Your task to perform on an android device: delete location history Image 0: 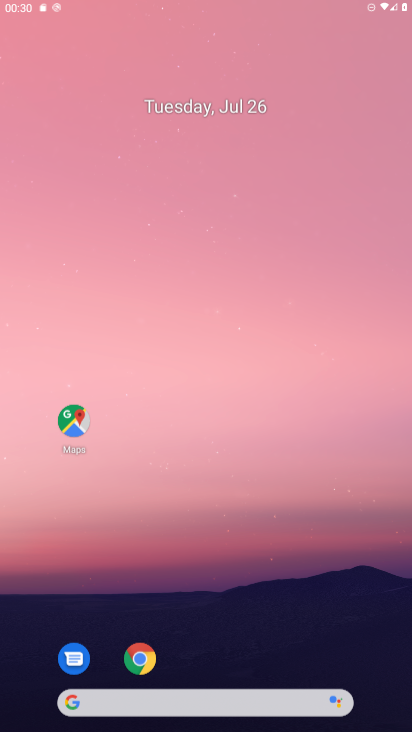
Step 0: press home button
Your task to perform on an android device: delete location history Image 1: 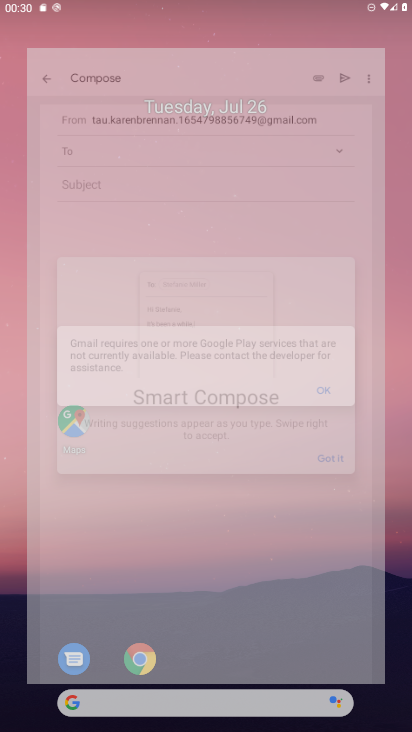
Step 1: click (347, 114)
Your task to perform on an android device: delete location history Image 2: 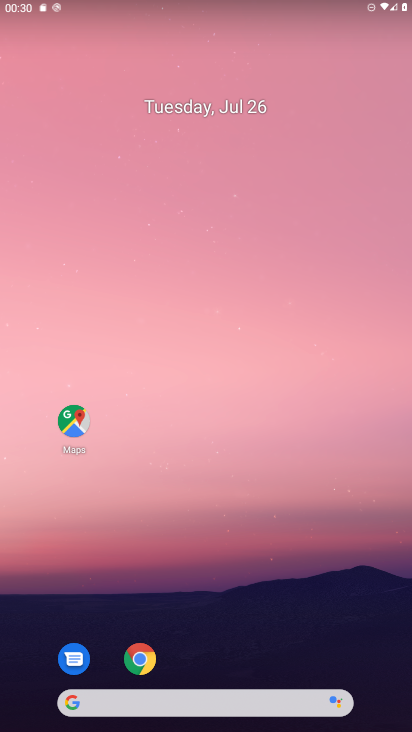
Step 2: drag from (305, 599) to (265, 187)
Your task to perform on an android device: delete location history Image 3: 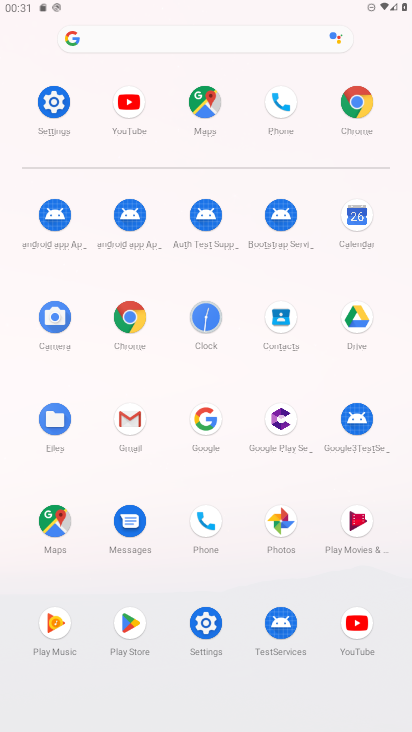
Step 3: click (56, 520)
Your task to perform on an android device: delete location history Image 4: 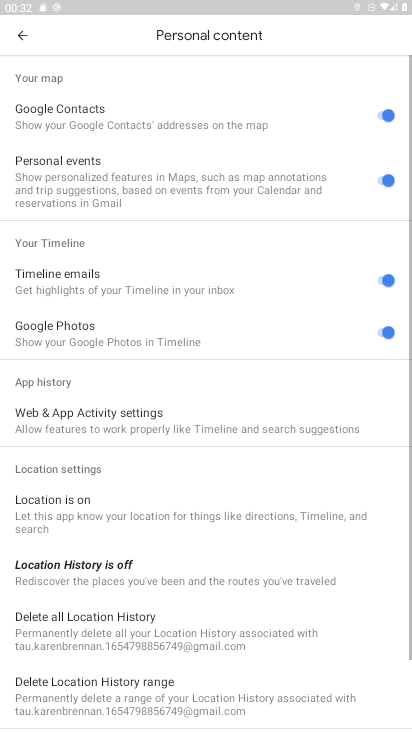
Step 4: click (100, 636)
Your task to perform on an android device: delete location history Image 5: 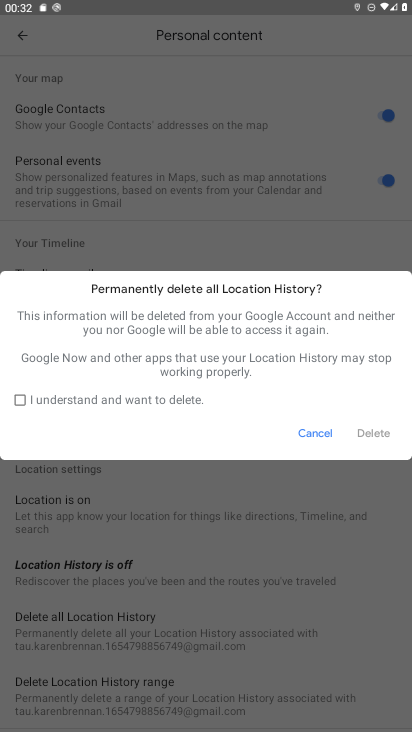
Step 5: click (86, 382)
Your task to perform on an android device: delete location history Image 6: 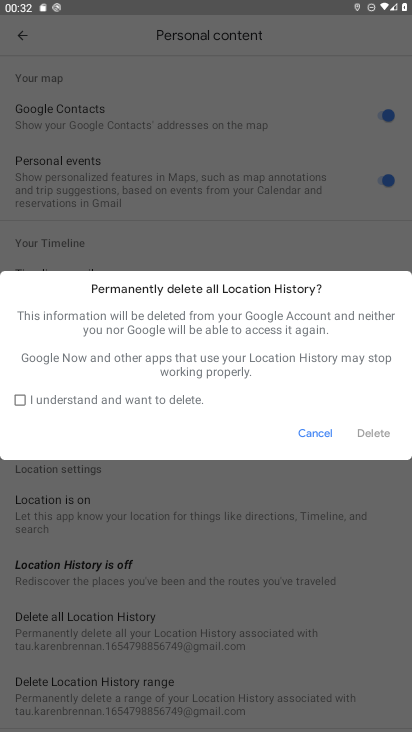
Step 6: click (87, 391)
Your task to perform on an android device: delete location history Image 7: 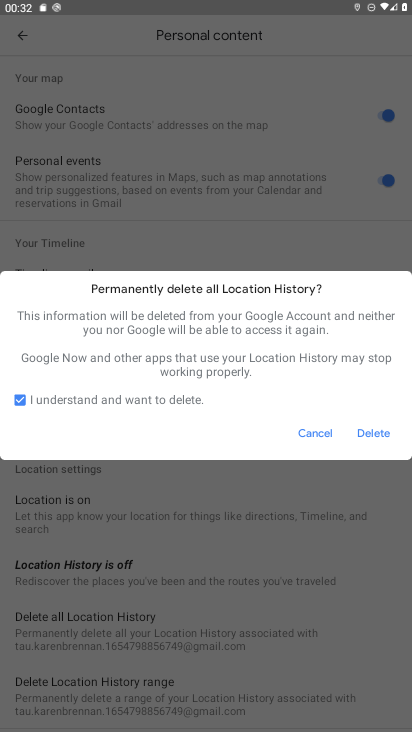
Step 7: click (382, 433)
Your task to perform on an android device: delete location history Image 8: 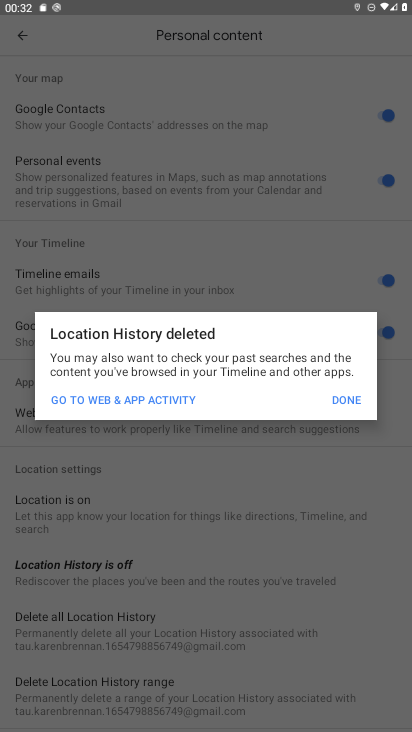
Step 8: task complete